Your task to perform on an android device: move an email to a new category in the gmail app Image 0: 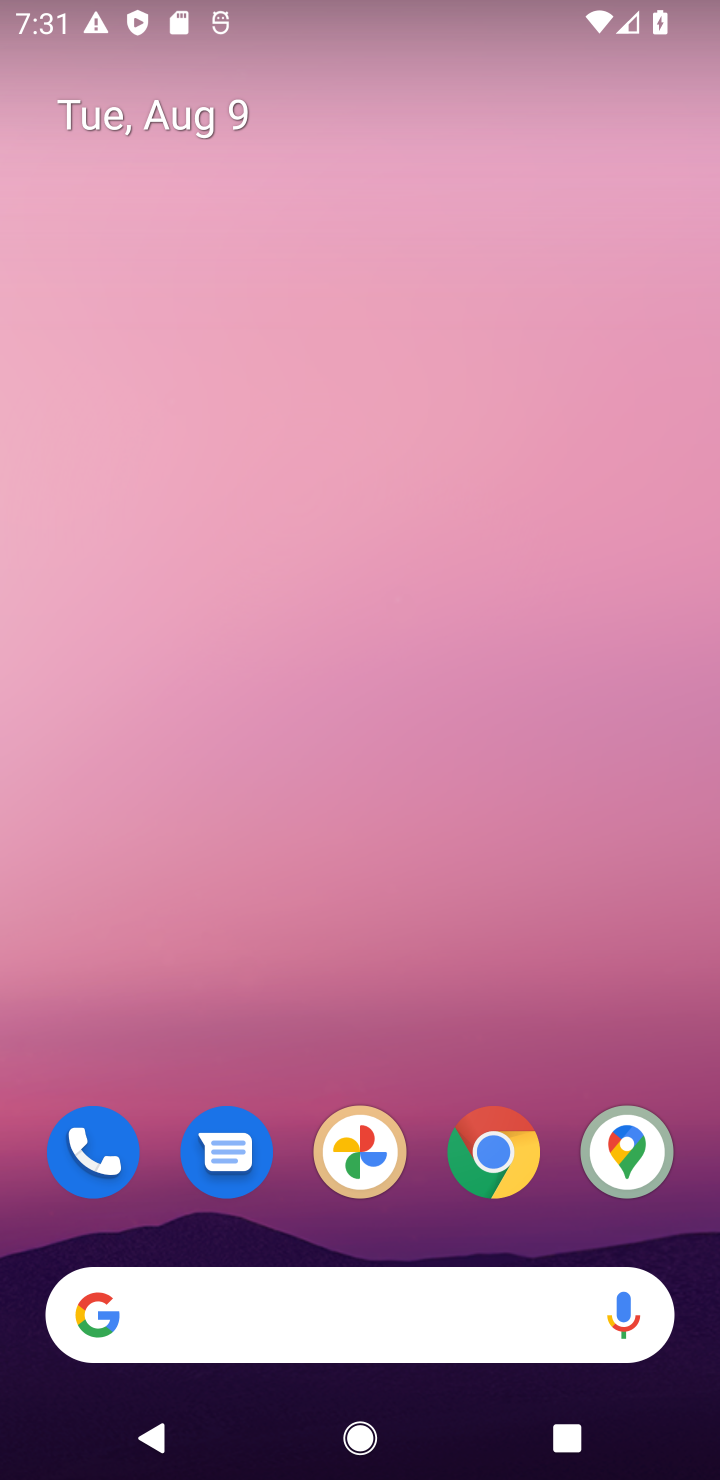
Step 0: drag from (412, 1105) to (508, 137)
Your task to perform on an android device: move an email to a new category in the gmail app Image 1: 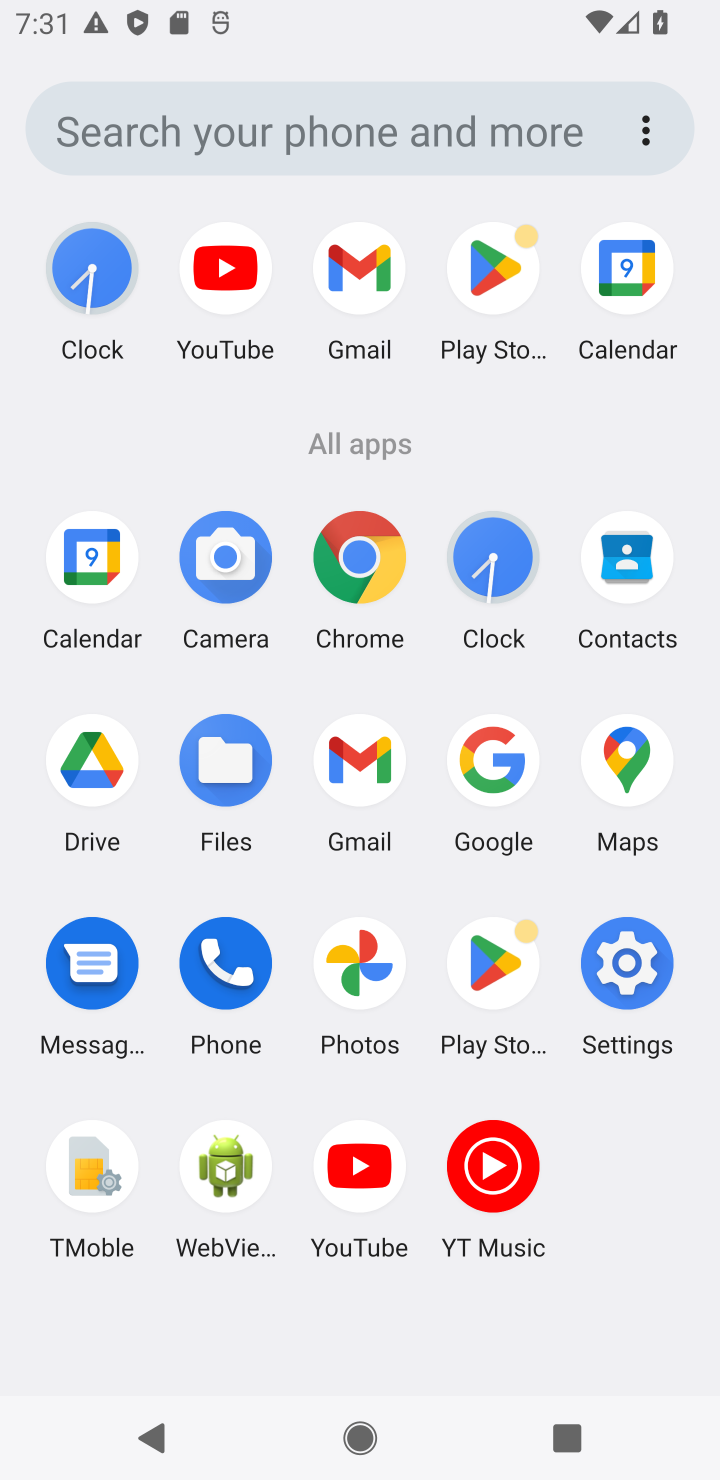
Step 1: click (346, 739)
Your task to perform on an android device: move an email to a new category in the gmail app Image 2: 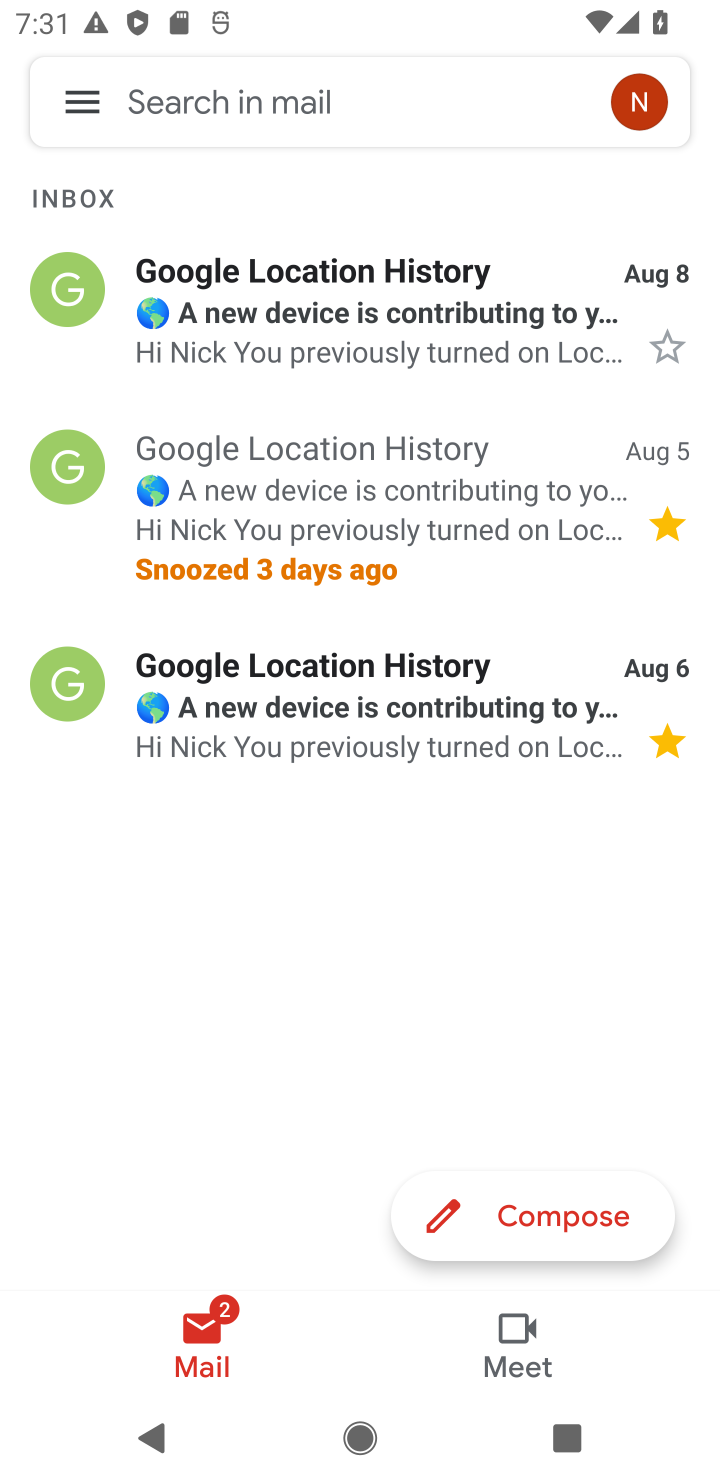
Step 2: click (101, 676)
Your task to perform on an android device: move an email to a new category in the gmail app Image 3: 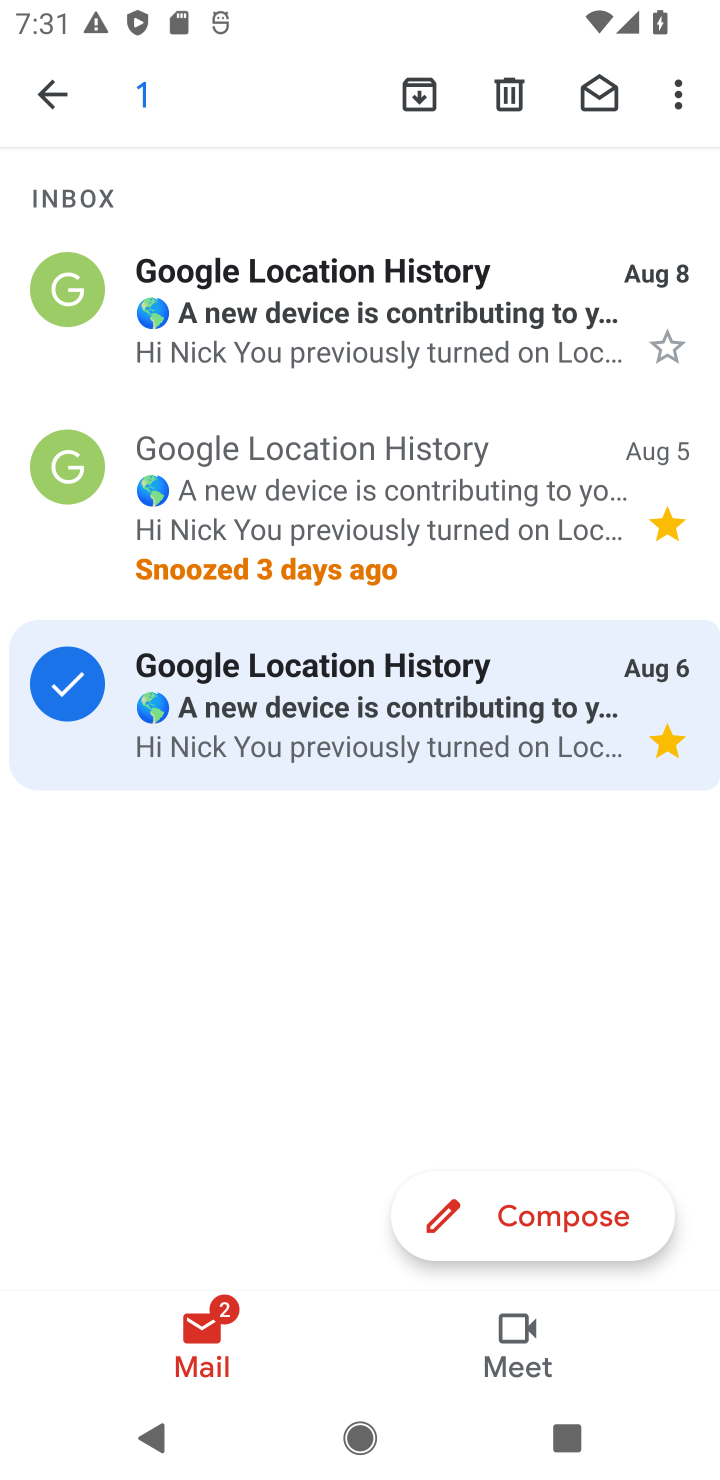
Step 3: click (694, 81)
Your task to perform on an android device: move an email to a new category in the gmail app Image 4: 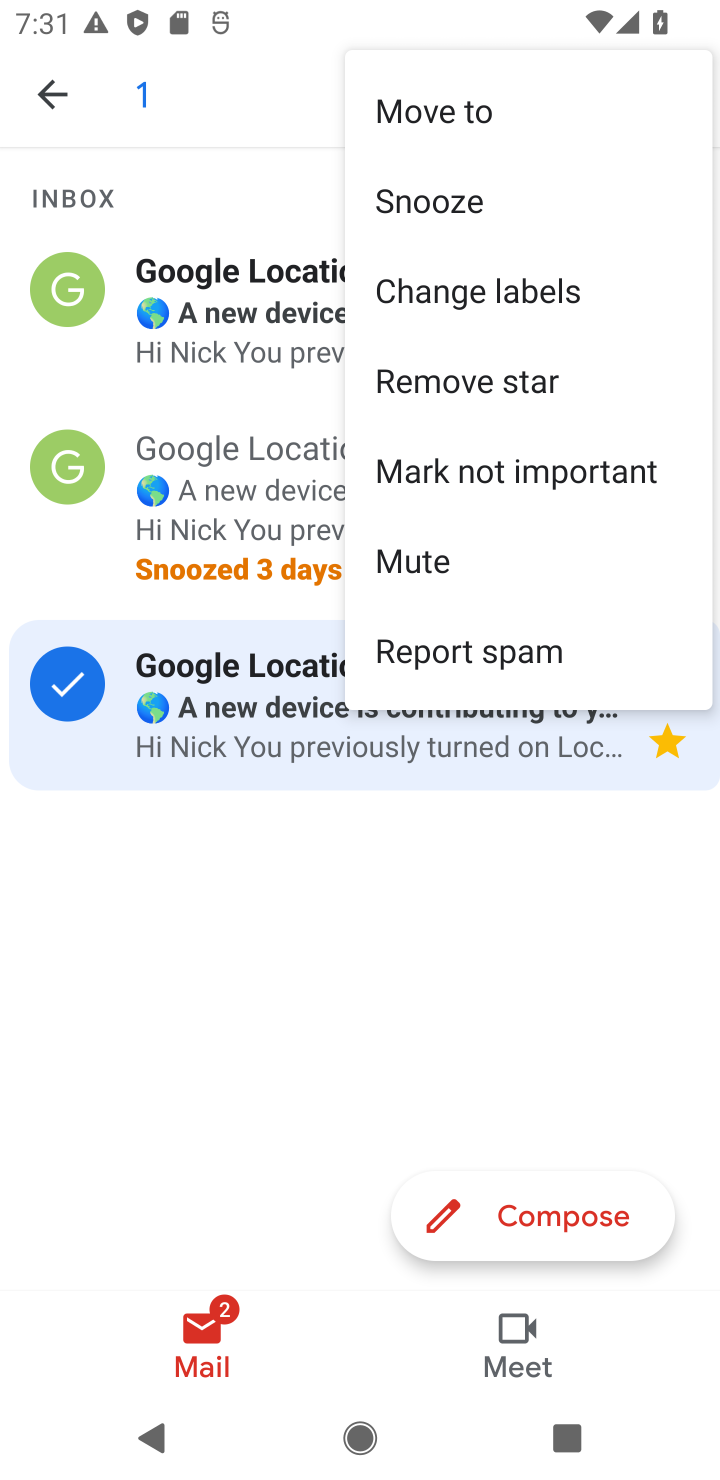
Step 4: click (607, 287)
Your task to perform on an android device: move an email to a new category in the gmail app Image 5: 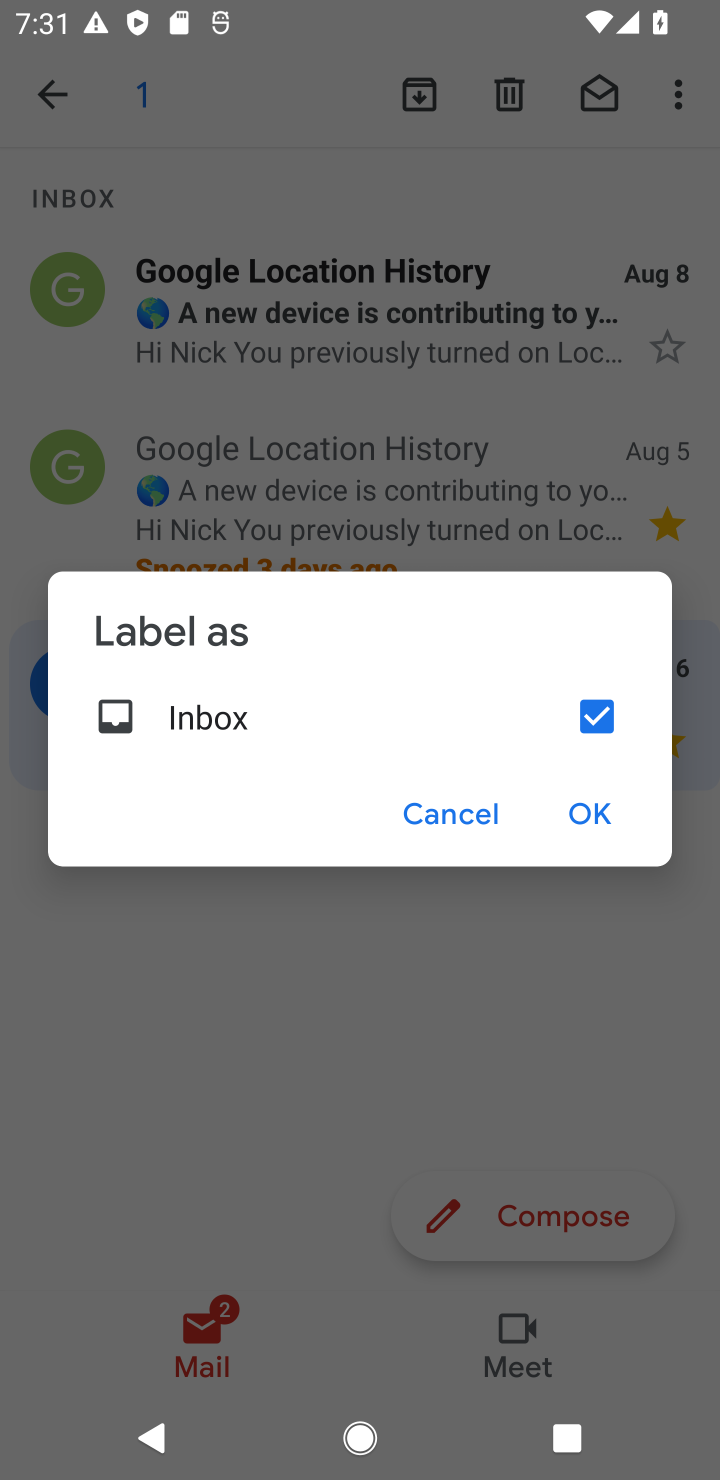
Step 5: click (619, 817)
Your task to perform on an android device: move an email to a new category in the gmail app Image 6: 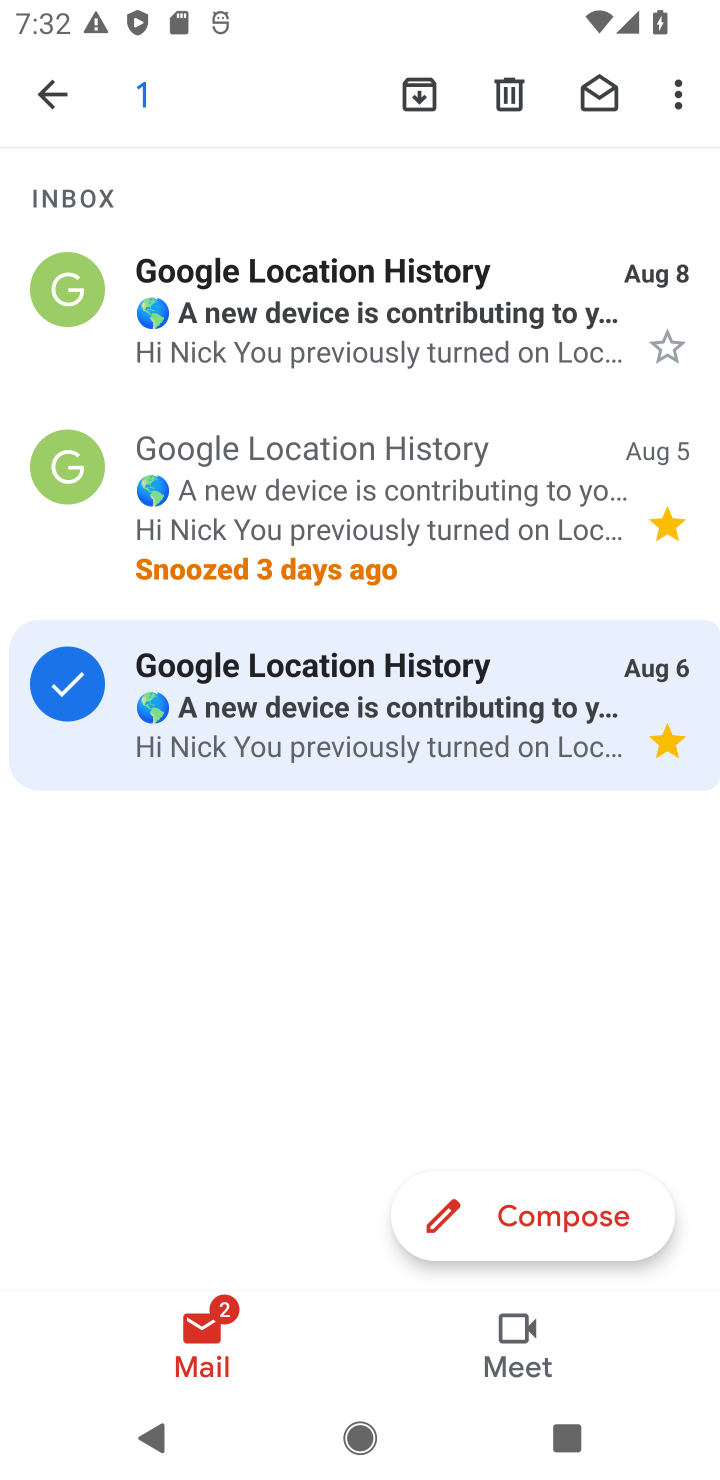
Step 6: task complete